Your task to perform on an android device: turn pop-ups on in chrome Image 0: 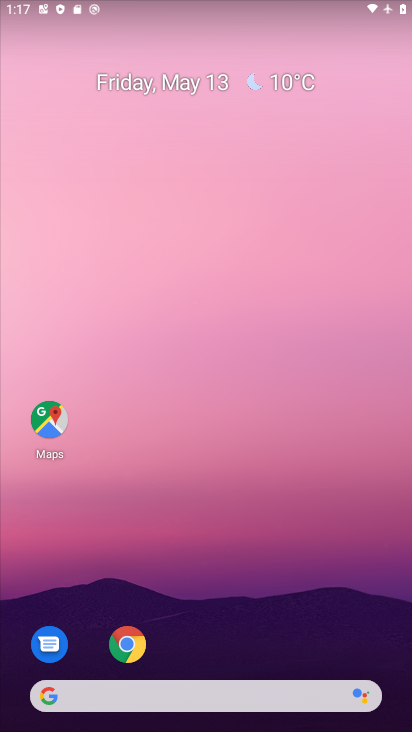
Step 0: click (124, 644)
Your task to perform on an android device: turn pop-ups on in chrome Image 1: 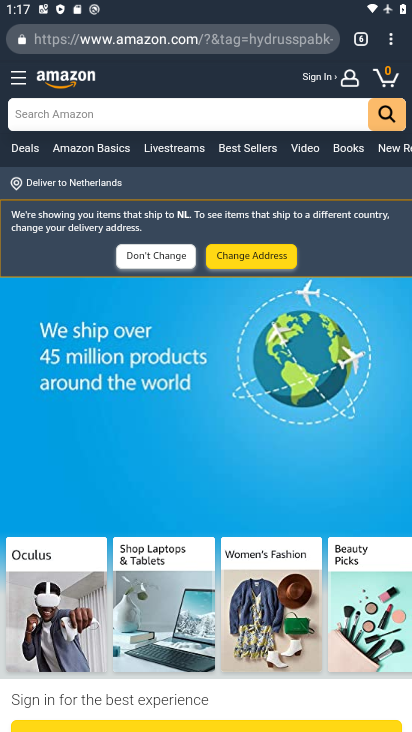
Step 1: click (394, 47)
Your task to perform on an android device: turn pop-ups on in chrome Image 2: 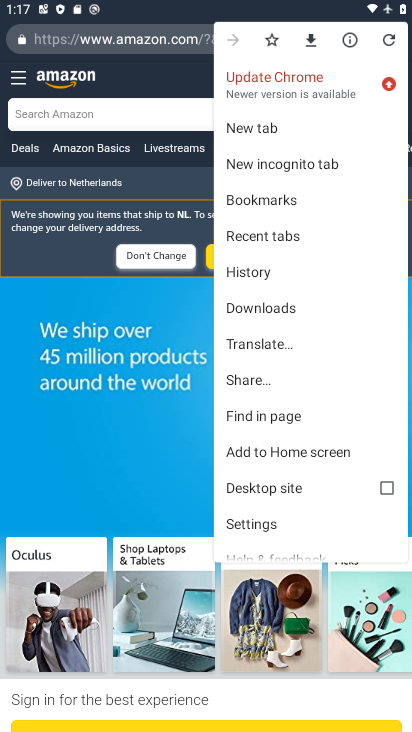
Step 2: click (256, 522)
Your task to perform on an android device: turn pop-ups on in chrome Image 3: 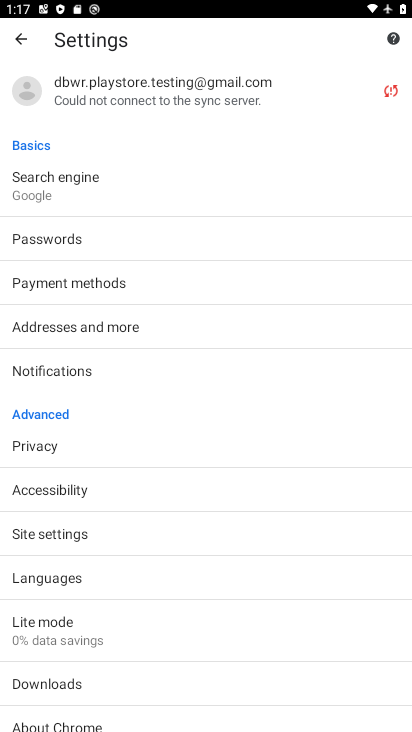
Step 3: drag from (181, 661) to (166, 405)
Your task to perform on an android device: turn pop-ups on in chrome Image 4: 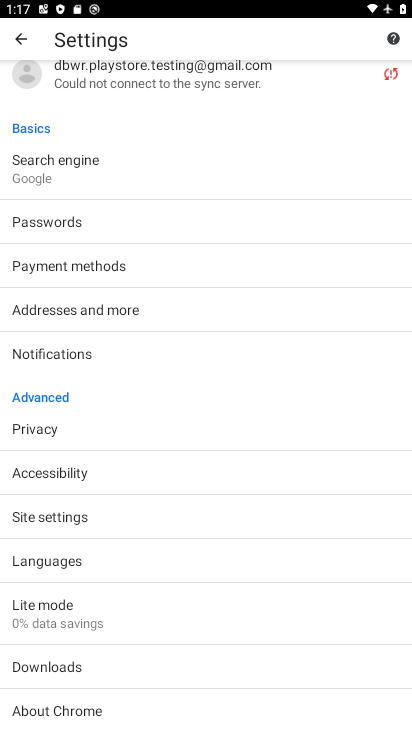
Step 4: click (40, 517)
Your task to perform on an android device: turn pop-ups on in chrome Image 5: 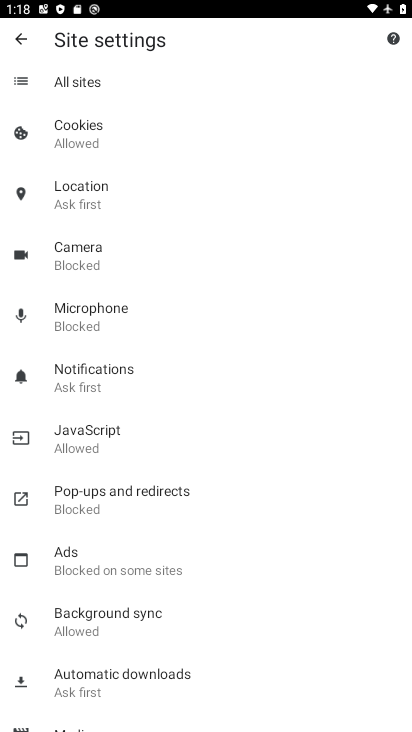
Step 5: click (103, 497)
Your task to perform on an android device: turn pop-ups on in chrome Image 6: 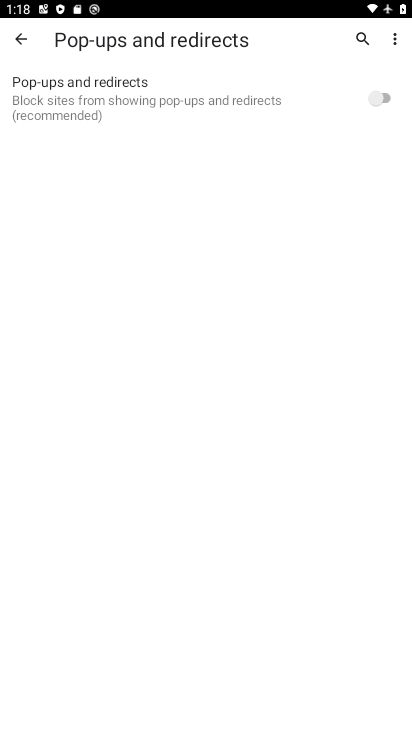
Step 6: click (388, 95)
Your task to perform on an android device: turn pop-ups on in chrome Image 7: 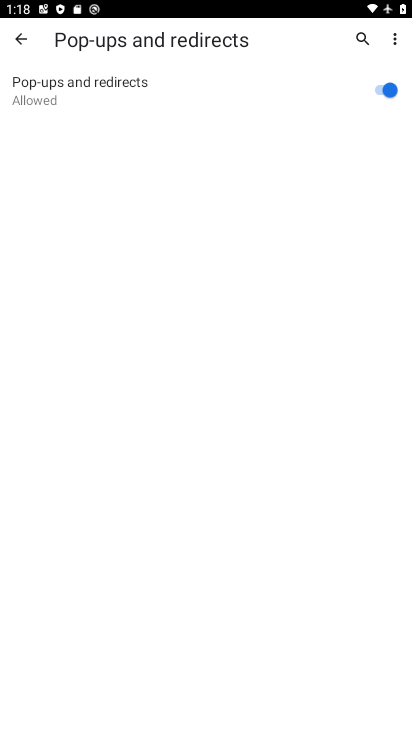
Step 7: task complete